Your task to perform on an android device: Go to privacy settings Image 0: 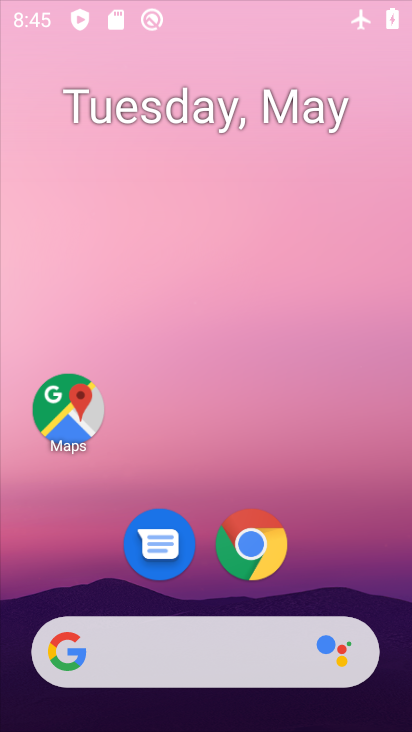
Step 0: click (355, 174)
Your task to perform on an android device: Go to privacy settings Image 1: 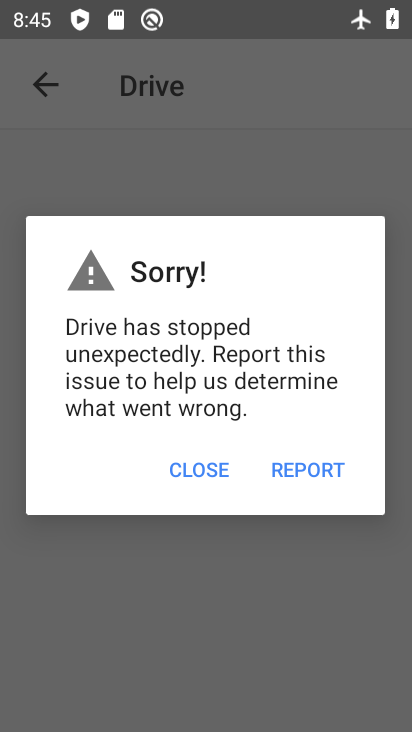
Step 1: drag from (361, 574) to (326, 238)
Your task to perform on an android device: Go to privacy settings Image 2: 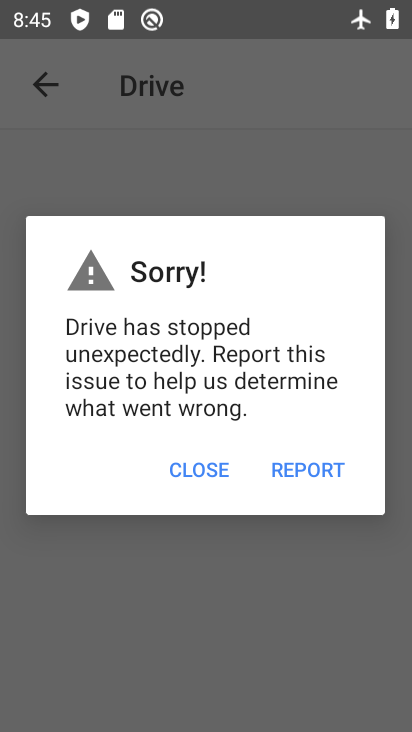
Step 2: press home button
Your task to perform on an android device: Go to privacy settings Image 3: 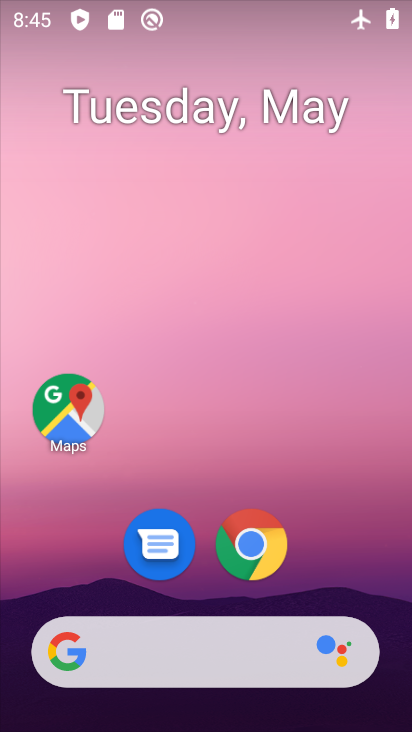
Step 3: drag from (380, 548) to (346, 77)
Your task to perform on an android device: Go to privacy settings Image 4: 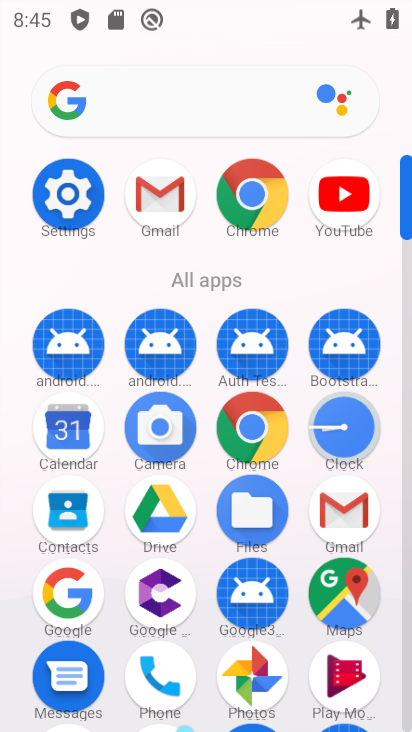
Step 4: click (52, 201)
Your task to perform on an android device: Go to privacy settings Image 5: 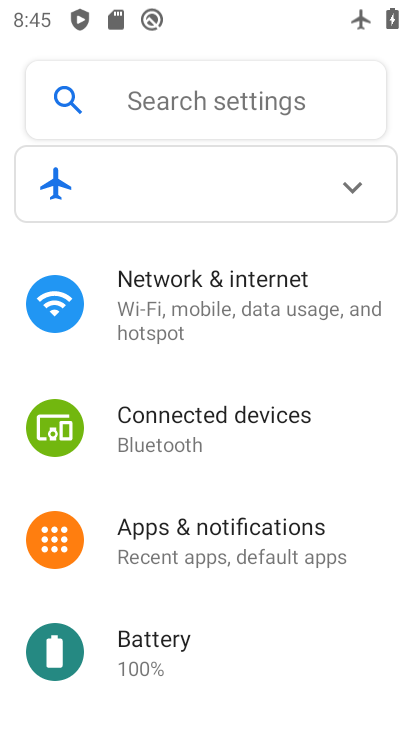
Step 5: drag from (244, 604) to (258, 235)
Your task to perform on an android device: Go to privacy settings Image 6: 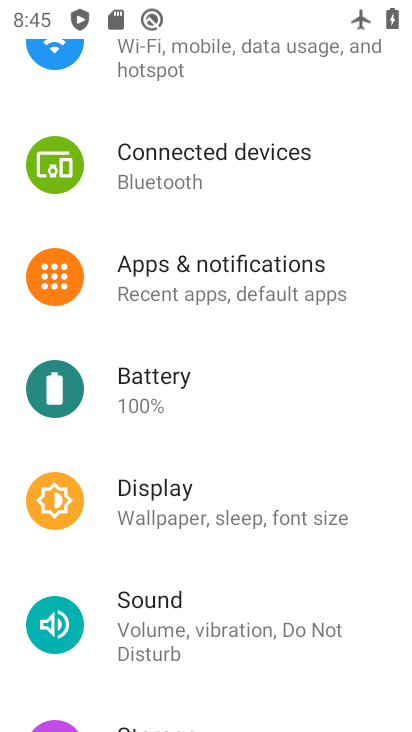
Step 6: drag from (251, 671) to (252, 285)
Your task to perform on an android device: Go to privacy settings Image 7: 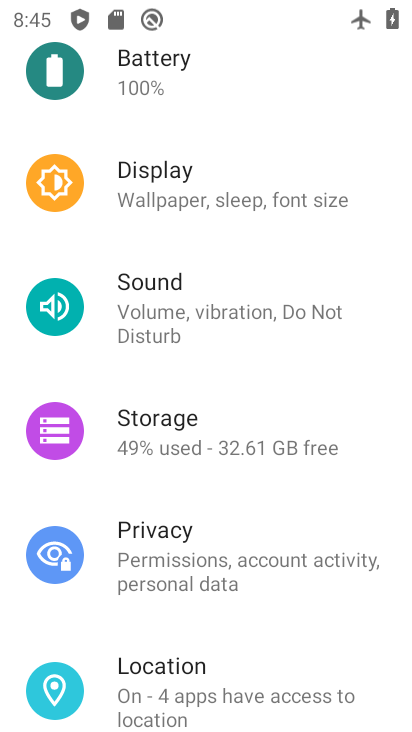
Step 7: click (243, 552)
Your task to perform on an android device: Go to privacy settings Image 8: 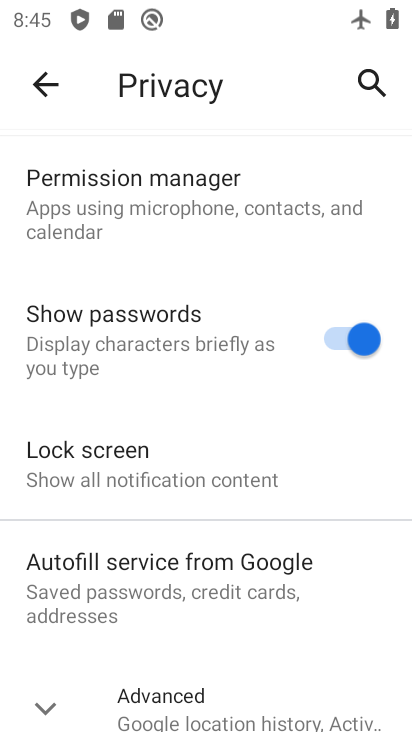
Step 8: task complete